Your task to perform on an android device: turn on bluetooth scan Image 0: 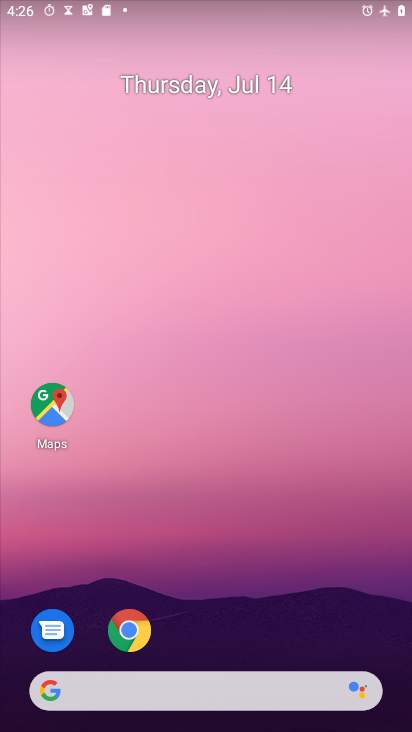
Step 0: drag from (218, 714) to (217, 126)
Your task to perform on an android device: turn on bluetooth scan Image 1: 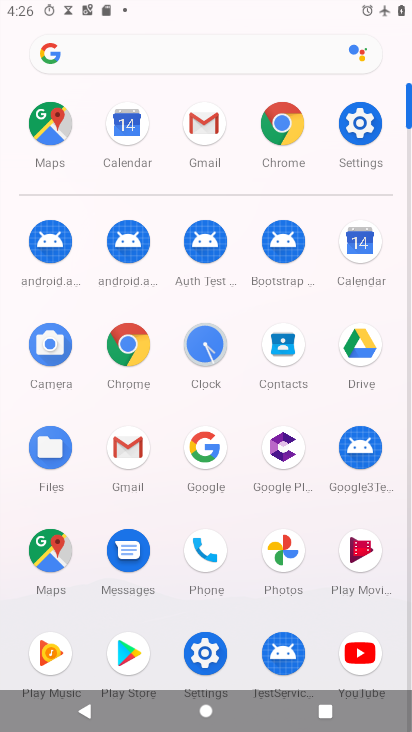
Step 1: click (364, 126)
Your task to perform on an android device: turn on bluetooth scan Image 2: 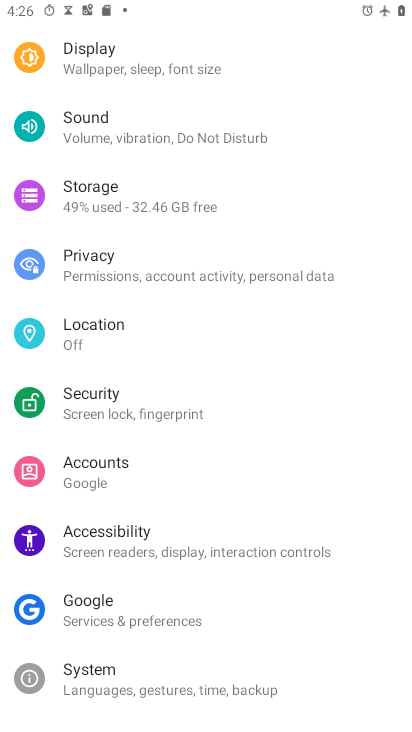
Step 2: click (92, 331)
Your task to perform on an android device: turn on bluetooth scan Image 3: 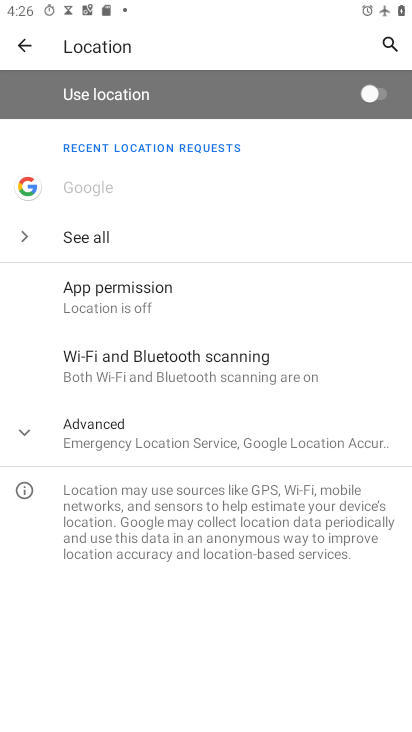
Step 3: click (104, 357)
Your task to perform on an android device: turn on bluetooth scan Image 4: 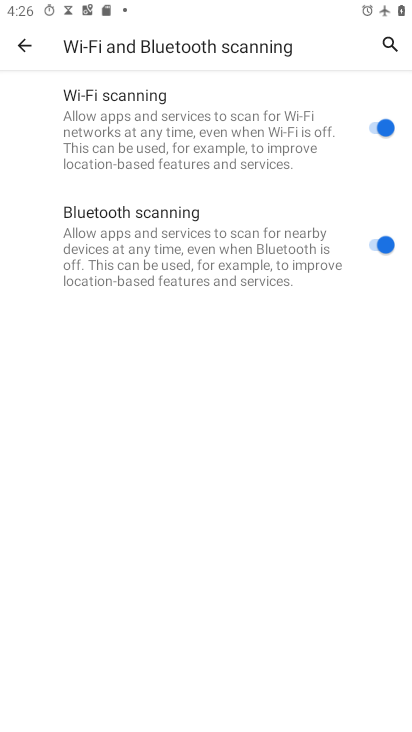
Step 4: task complete